Your task to perform on an android device: toggle notifications settings in the gmail app Image 0: 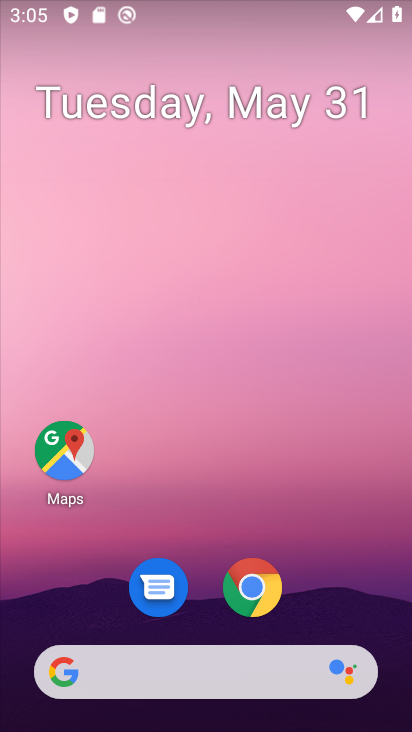
Step 0: drag from (328, 614) to (316, 4)
Your task to perform on an android device: toggle notifications settings in the gmail app Image 1: 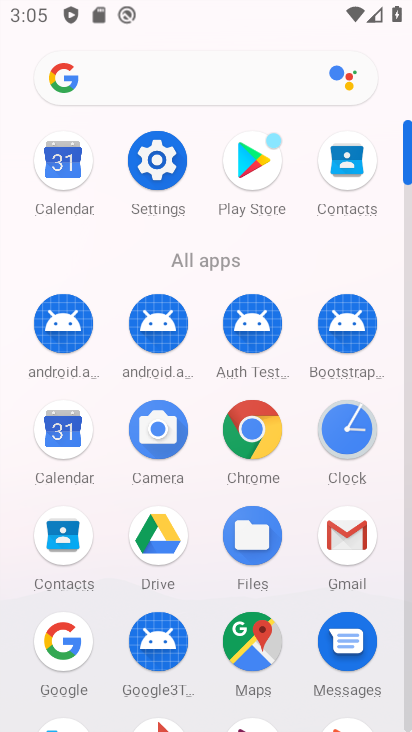
Step 1: click (348, 537)
Your task to perform on an android device: toggle notifications settings in the gmail app Image 2: 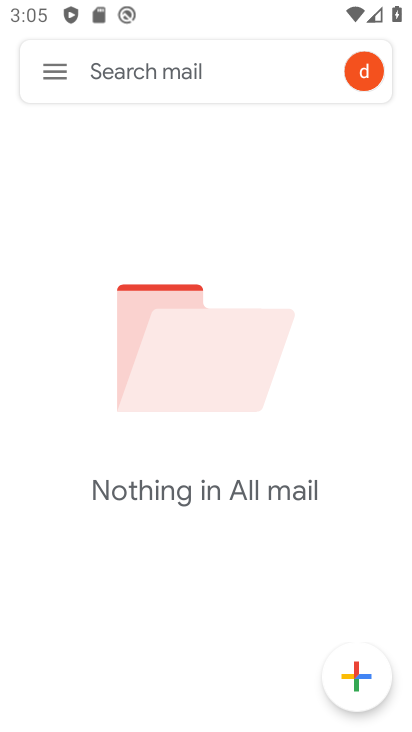
Step 2: click (55, 69)
Your task to perform on an android device: toggle notifications settings in the gmail app Image 3: 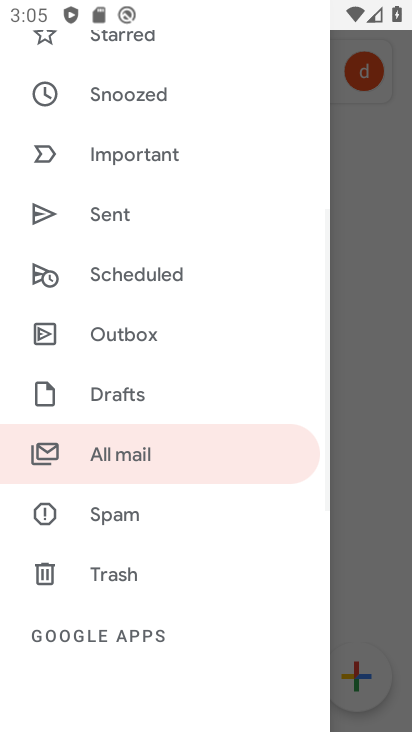
Step 3: drag from (165, 650) to (213, 135)
Your task to perform on an android device: toggle notifications settings in the gmail app Image 4: 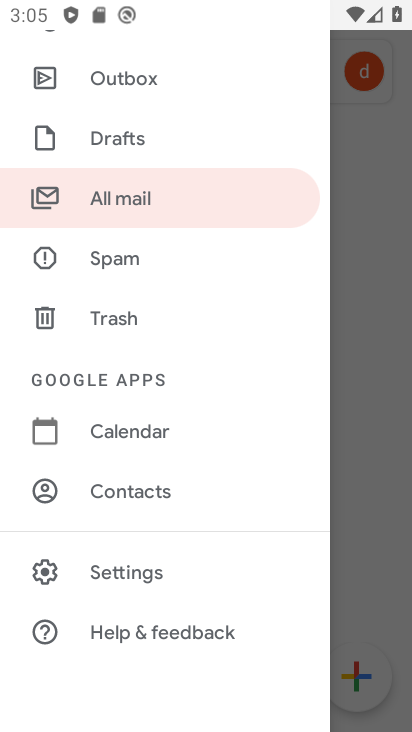
Step 4: click (131, 557)
Your task to perform on an android device: toggle notifications settings in the gmail app Image 5: 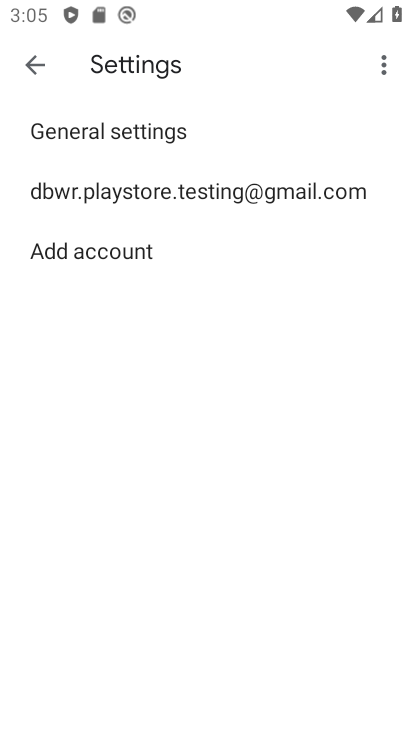
Step 5: click (130, 179)
Your task to perform on an android device: toggle notifications settings in the gmail app Image 6: 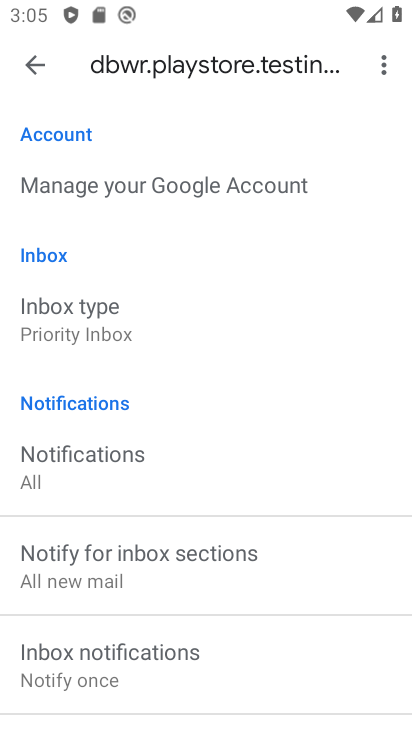
Step 6: drag from (142, 623) to (151, 238)
Your task to perform on an android device: toggle notifications settings in the gmail app Image 7: 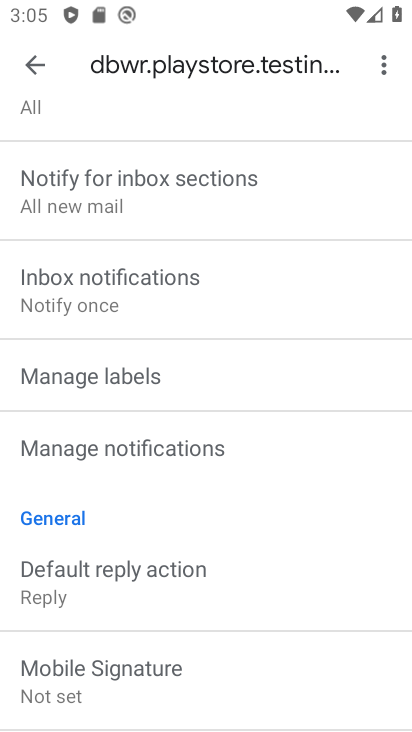
Step 7: click (120, 459)
Your task to perform on an android device: toggle notifications settings in the gmail app Image 8: 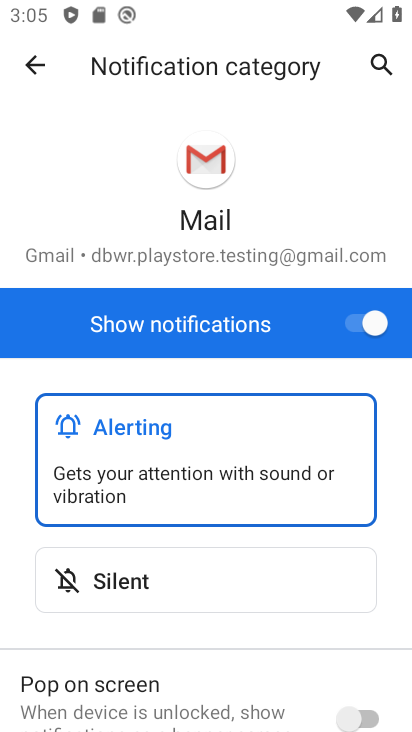
Step 8: click (358, 316)
Your task to perform on an android device: toggle notifications settings in the gmail app Image 9: 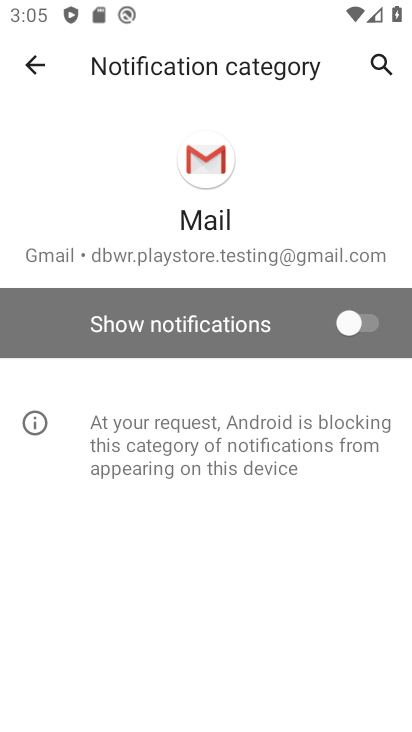
Step 9: task complete